Your task to perform on an android device: Go to sound settings Image 0: 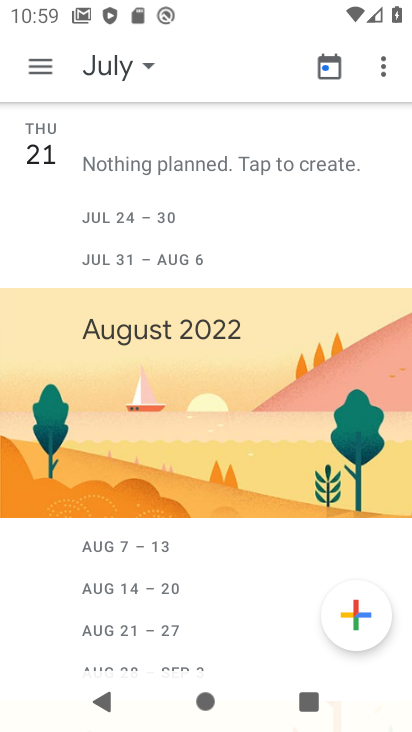
Step 0: press home button
Your task to perform on an android device: Go to sound settings Image 1: 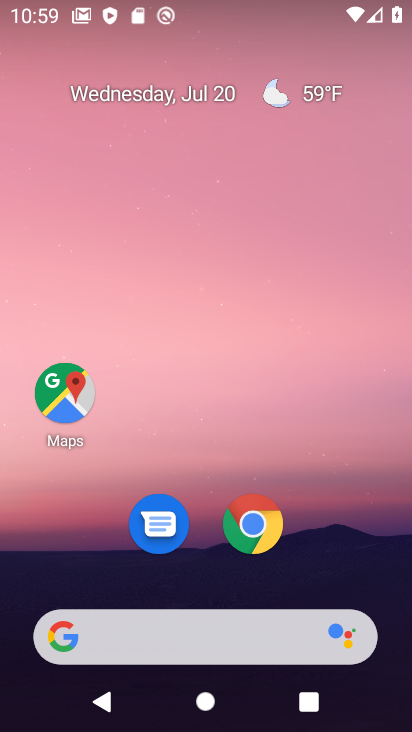
Step 1: drag from (225, 622) to (310, 110)
Your task to perform on an android device: Go to sound settings Image 2: 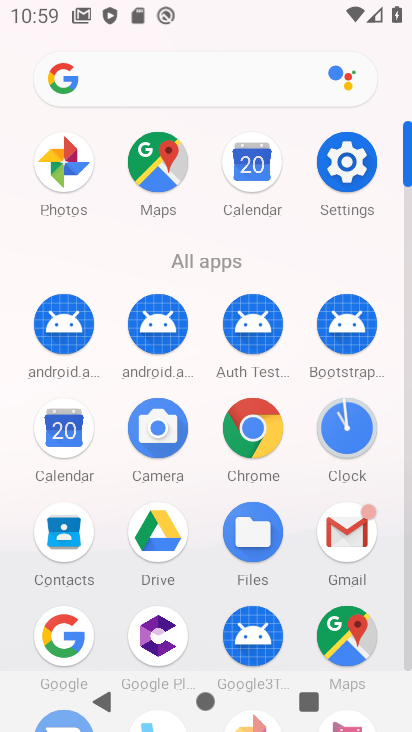
Step 2: click (351, 171)
Your task to perform on an android device: Go to sound settings Image 3: 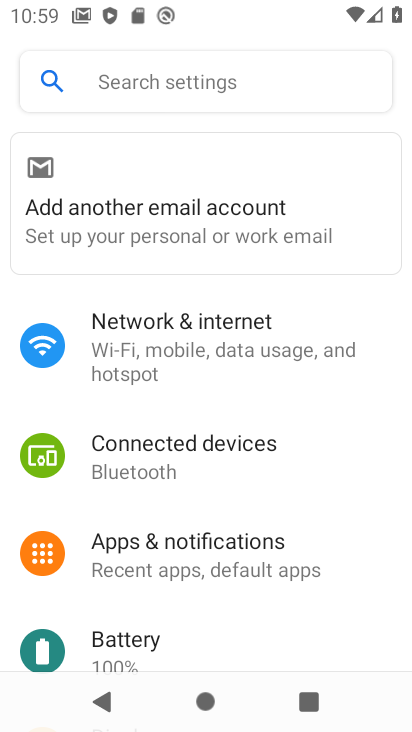
Step 3: drag from (170, 576) to (292, 251)
Your task to perform on an android device: Go to sound settings Image 4: 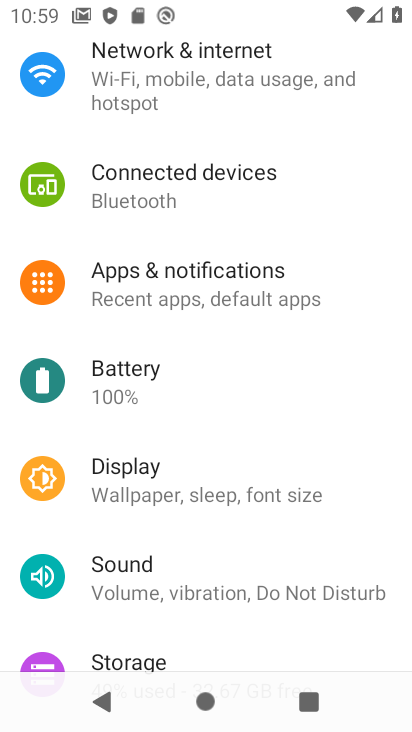
Step 4: click (130, 563)
Your task to perform on an android device: Go to sound settings Image 5: 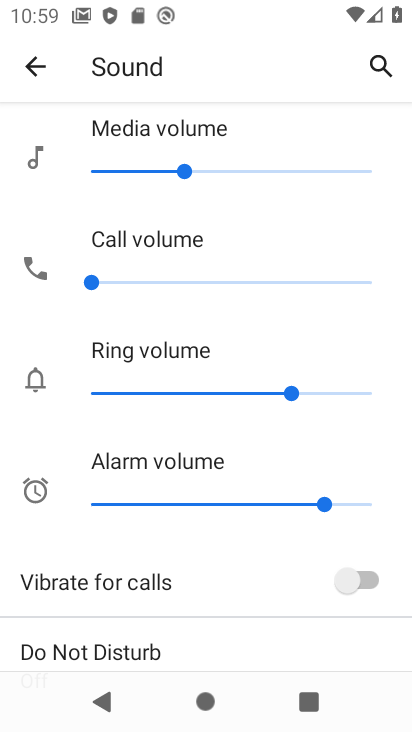
Step 5: task complete